Your task to perform on an android device: Clear all items from cart on bestbuy.com. Add "logitech g933" to the cart on bestbuy.com, then select checkout. Image 0: 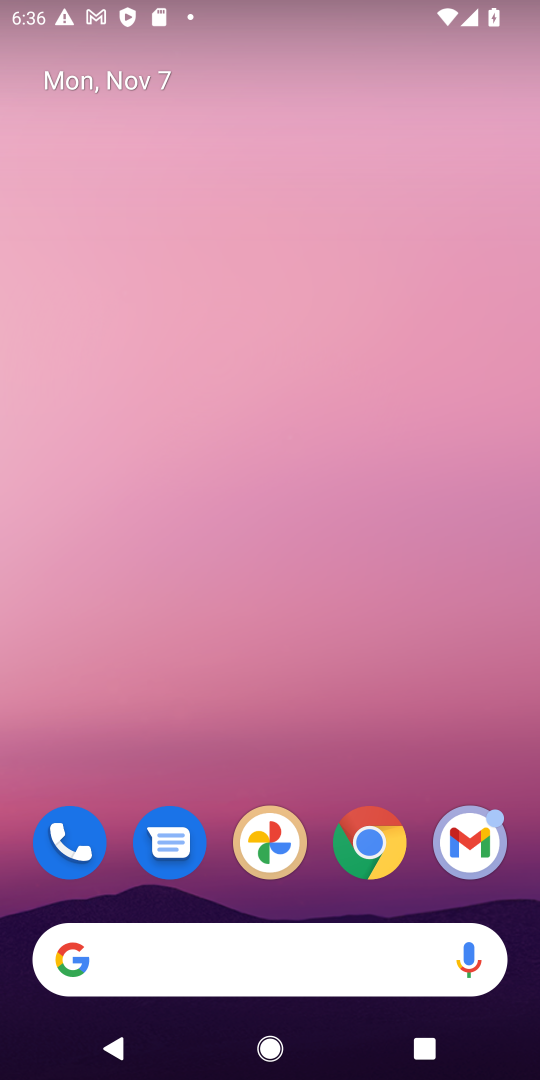
Step 0: drag from (331, 823) to (434, 209)
Your task to perform on an android device: Clear all items from cart on bestbuy.com. Add "logitech g933" to the cart on bestbuy.com, then select checkout. Image 1: 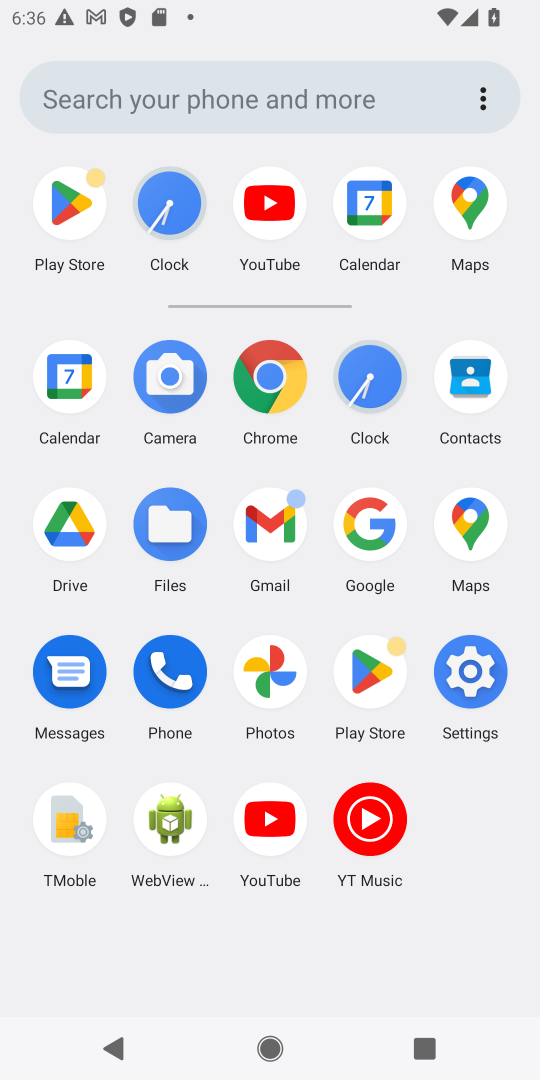
Step 1: click (273, 381)
Your task to perform on an android device: Clear all items from cart on bestbuy.com. Add "logitech g933" to the cart on bestbuy.com, then select checkout. Image 2: 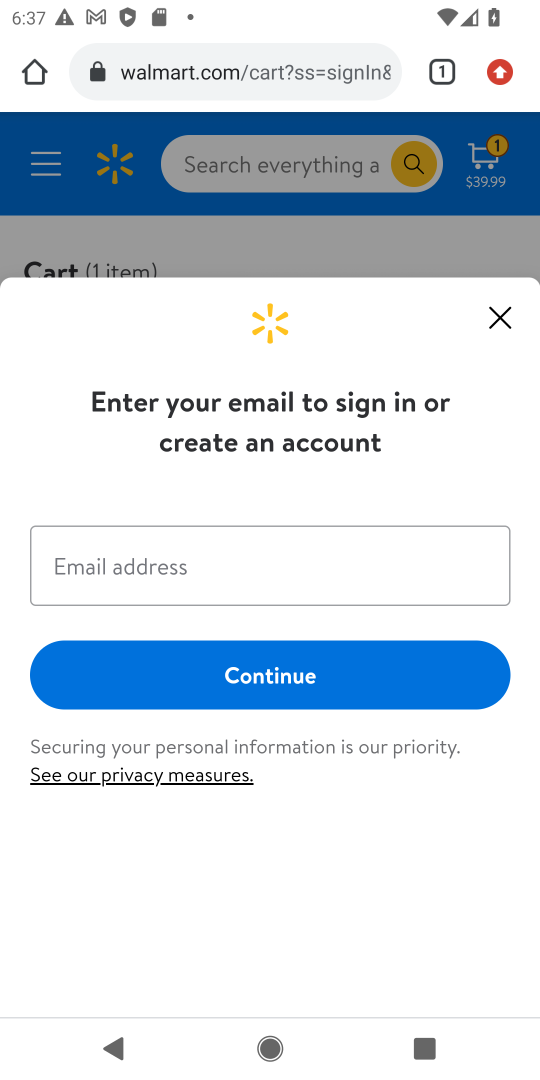
Step 2: press home button
Your task to perform on an android device: Clear all items from cart on bestbuy.com. Add "logitech g933" to the cart on bestbuy.com, then select checkout. Image 3: 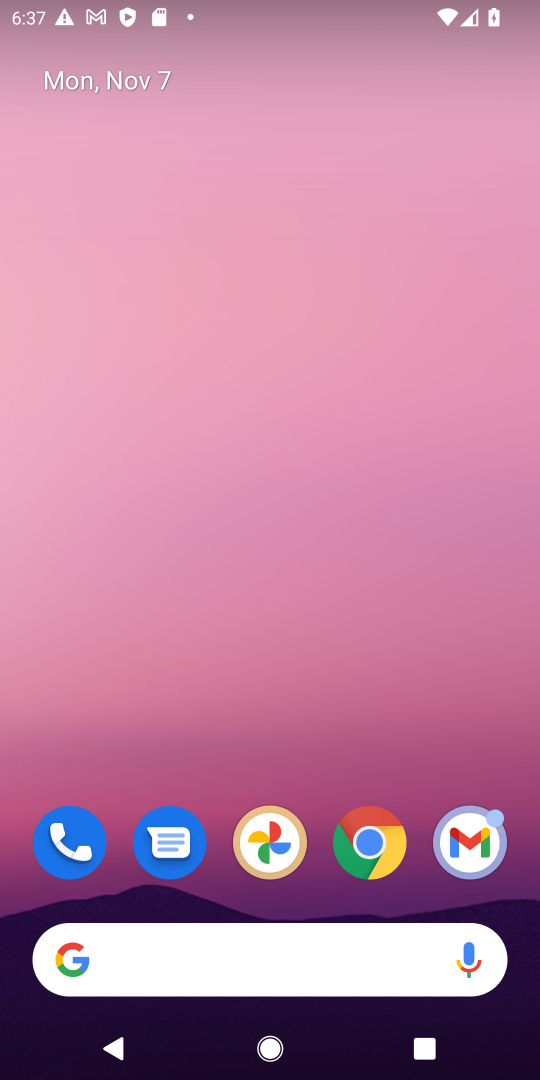
Step 3: click (370, 833)
Your task to perform on an android device: Clear all items from cart on bestbuy.com. Add "logitech g933" to the cart on bestbuy.com, then select checkout. Image 4: 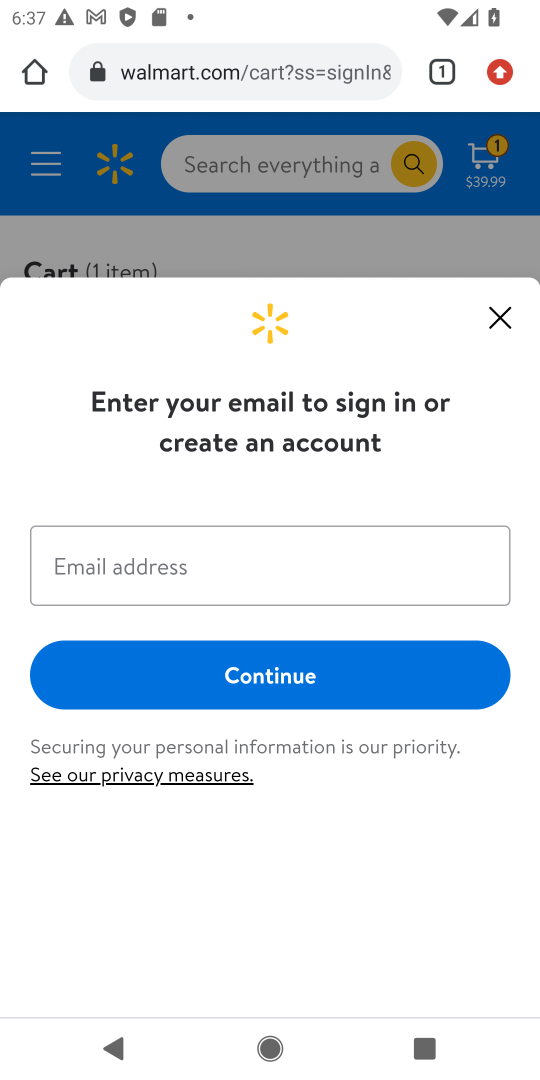
Step 4: click (187, 72)
Your task to perform on an android device: Clear all items from cart on bestbuy.com. Add "logitech g933" to the cart on bestbuy.com, then select checkout. Image 5: 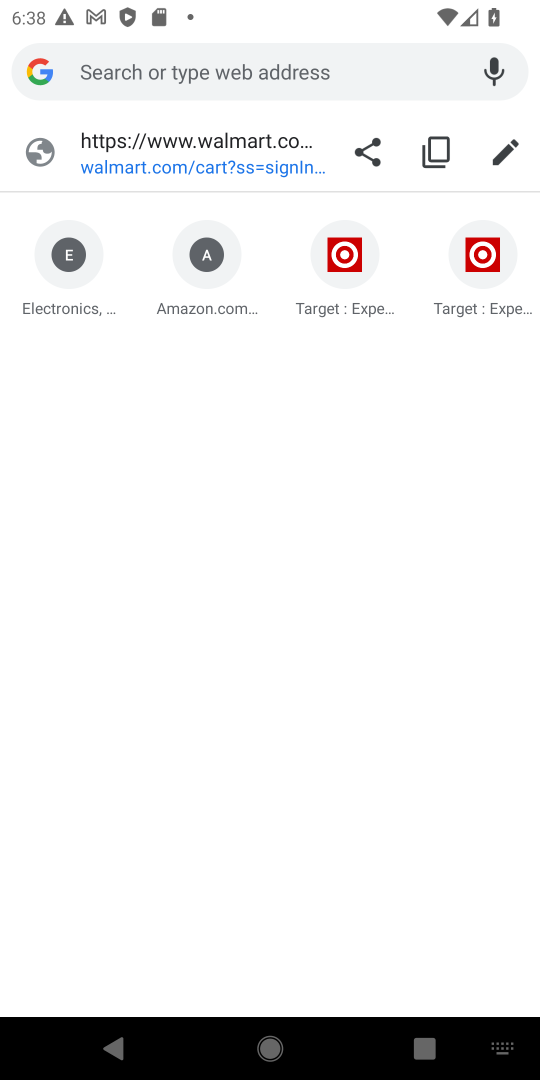
Step 5: type "bestbuy.com"
Your task to perform on an android device: Clear all items from cart on bestbuy.com. Add "logitech g933" to the cart on bestbuy.com, then select checkout. Image 6: 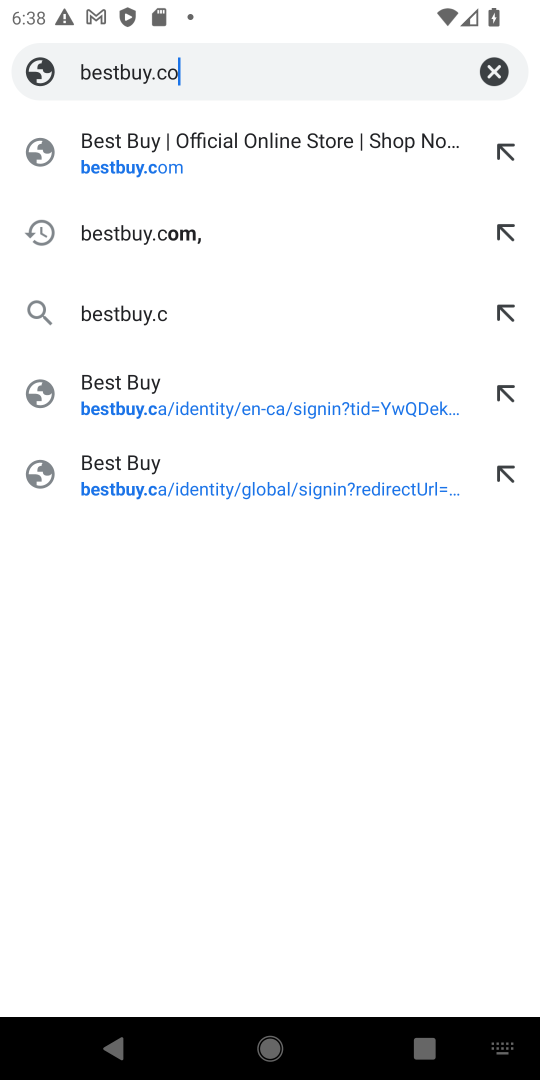
Step 6: press enter
Your task to perform on an android device: Clear all items from cart on bestbuy.com. Add "logitech g933" to the cart on bestbuy.com, then select checkout. Image 7: 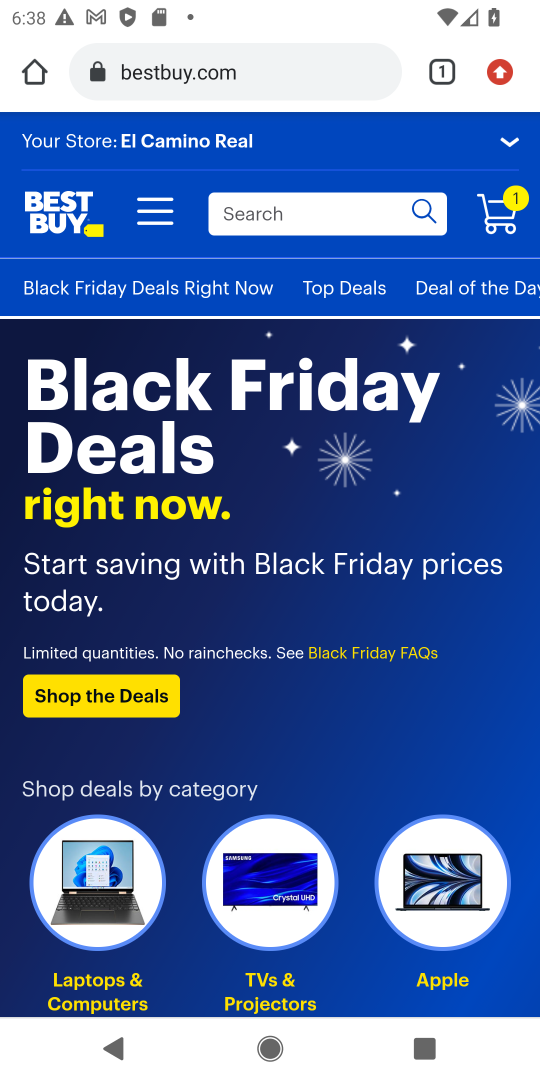
Step 7: click (494, 211)
Your task to perform on an android device: Clear all items from cart on bestbuy.com. Add "logitech g933" to the cart on bestbuy.com, then select checkout. Image 8: 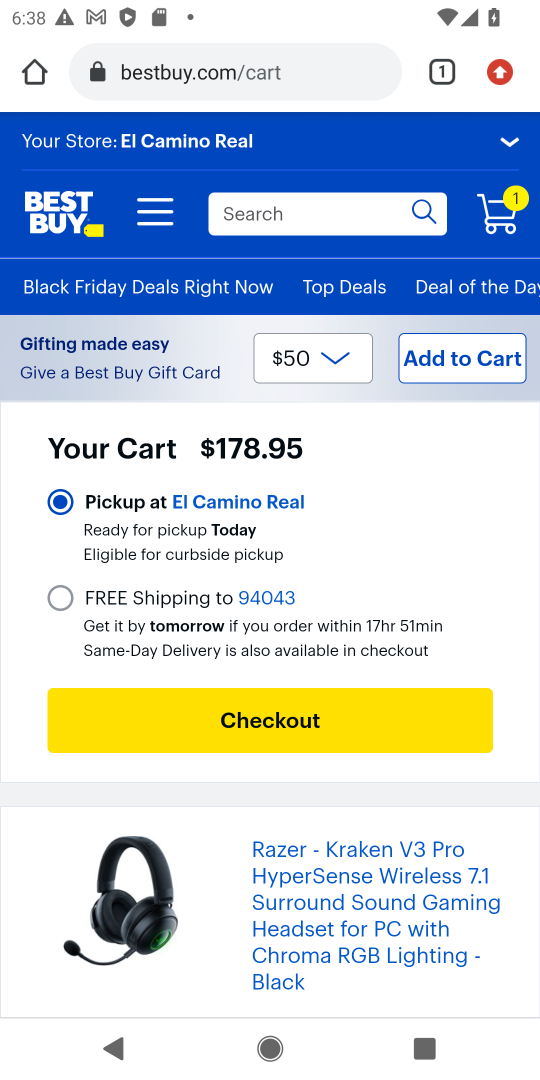
Step 8: drag from (140, 632) to (137, 267)
Your task to perform on an android device: Clear all items from cart on bestbuy.com. Add "logitech g933" to the cart on bestbuy.com, then select checkout. Image 9: 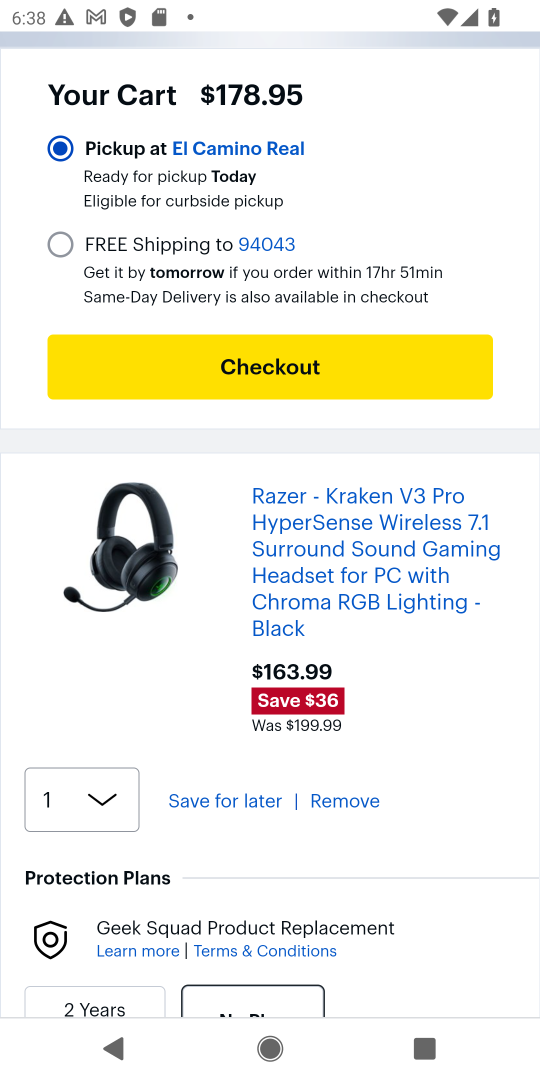
Step 9: click (352, 801)
Your task to perform on an android device: Clear all items from cart on bestbuy.com. Add "logitech g933" to the cart on bestbuy.com, then select checkout. Image 10: 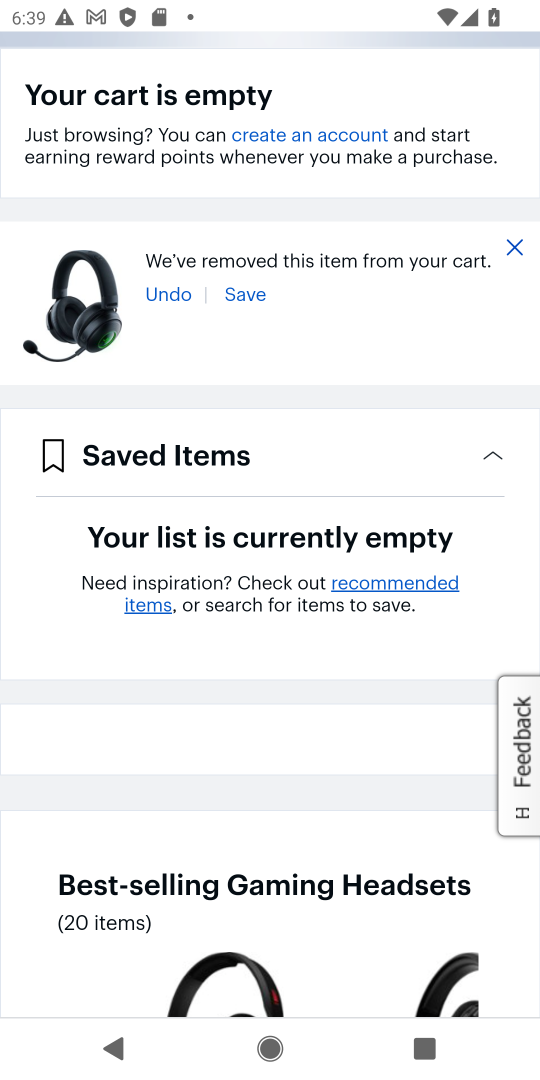
Step 10: press back button
Your task to perform on an android device: Clear all items from cart on bestbuy.com. Add "logitech g933" to the cart on bestbuy.com, then select checkout. Image 11: 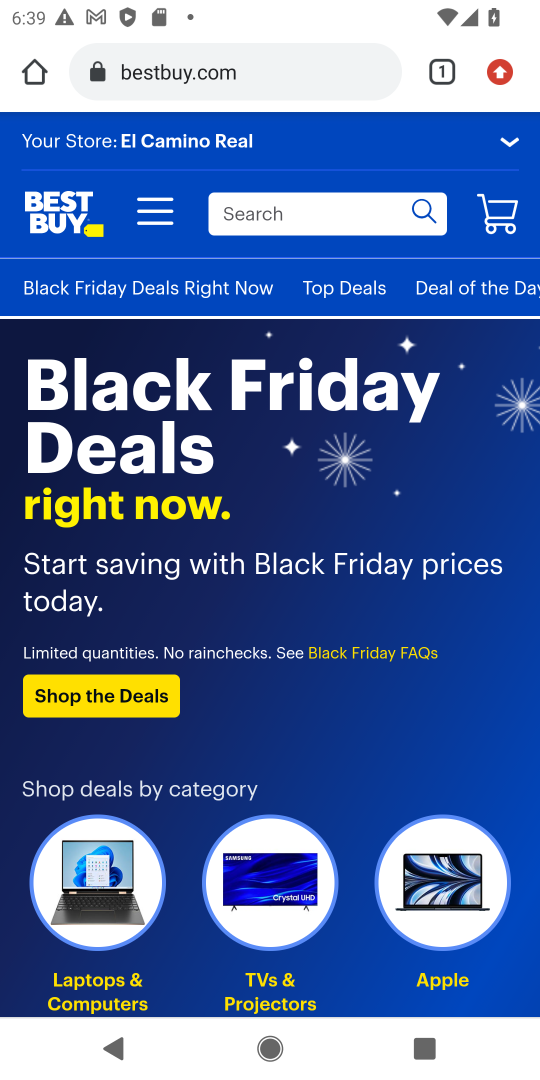
Step 11: click (340, 206)
Your task to perform on an android device: Clear all items from cart on bestbuy.com. Add "logitech g933" to the cart on bestbuy.com, then select checkout. Image 12: 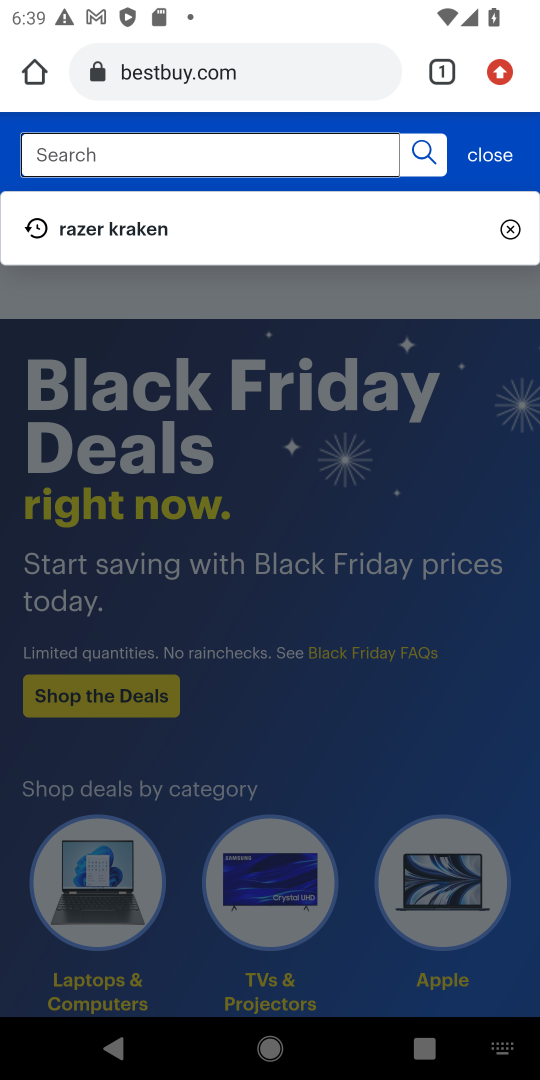
Step 12: type "logitech g933"
Your task to perform on an android device: Clear all items from cart on bestbuy.com. Add "logitech g933" to the cart on bestbuy.com, then select checkout. Image 13: 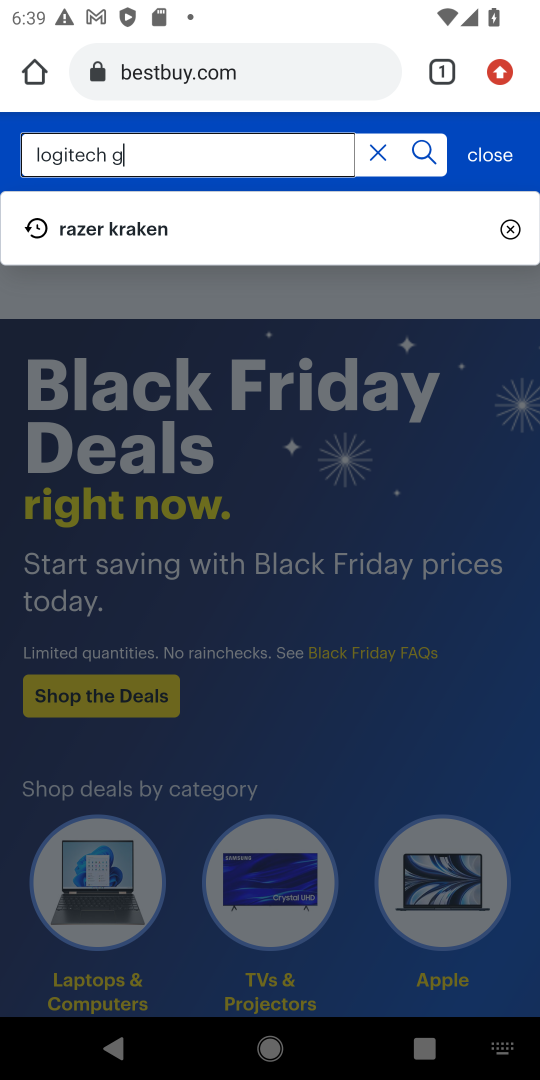
Step 13: press enter
Your task to perform on an android device: Clear all items from cart on bestbuy.com. Add "logitech g933" to the cart on bestbuy.com, then select checkout. Image 14: 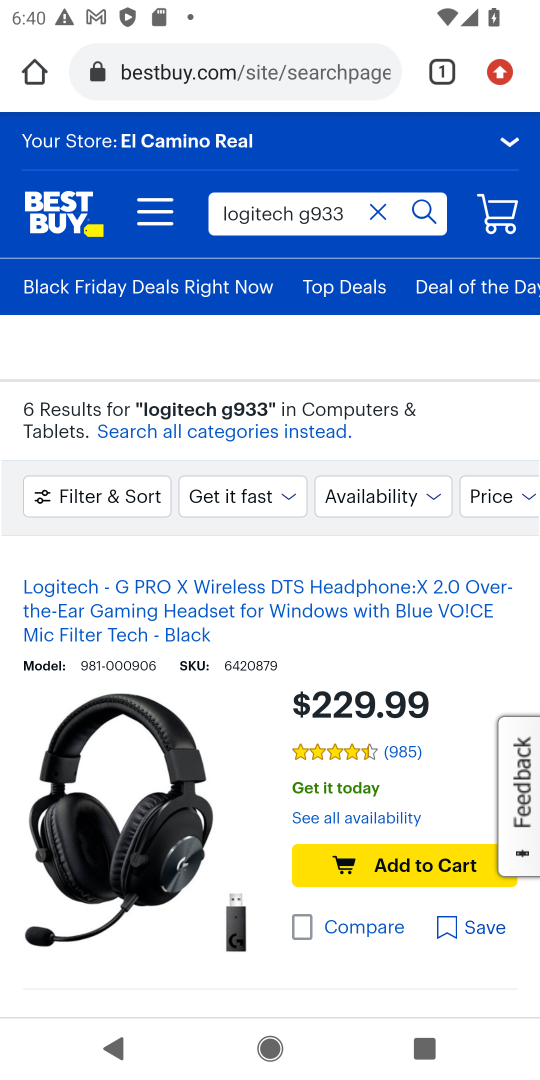
Step 14: drag from (189, 584) to (148, 320)
Your task to perform on an android device: Clear all items from cart on bestbuy.com. Add "logitech g933" to the cart on bestbuy.com, then select checkout. Image 15: 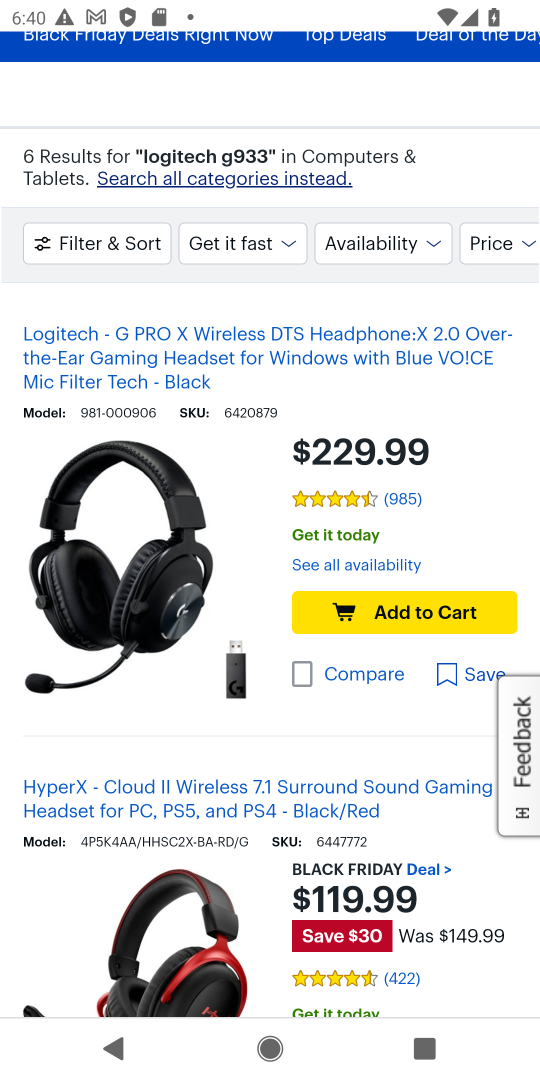
Step 15: click (360, 607)
Your task to perform on an android device: Clear all items from cart on bestbuy.com. Add "logitech g933" to the cart on bestbuy.com, then select checkout. Image 16: 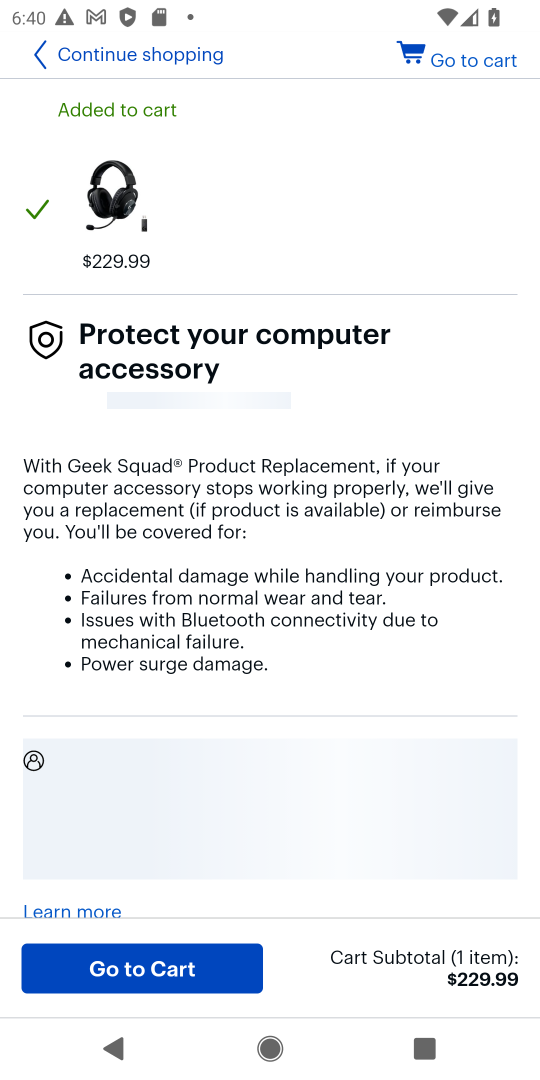
Step 16: click (204, 977)
Your task to perform on an android device: Clear all items from cart on bestbuy.com. Add "logitech g933" to the cart on bestbuy.com, then select checkout. Image 17: 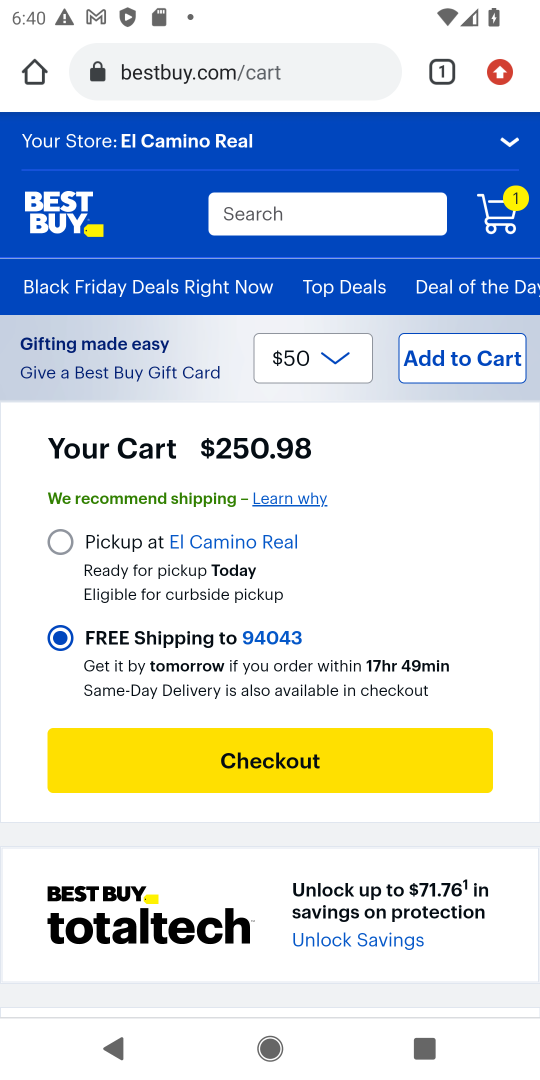
Step 17: click (499, 217)
Your task to perform on an android device: Clear all items from cart on bestbuy.com. Add "logitech g933" to the cart on bestbuy.com, then select checkout. Image 18: 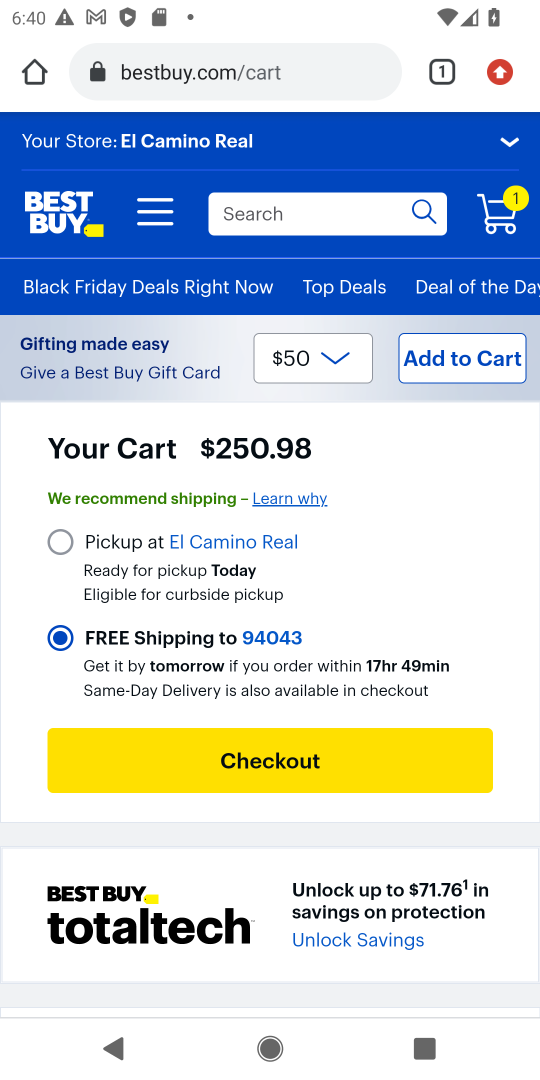
Step 18: click (286, 773)
Your task to perform on an android device: Clear all items from cart on bestbuy.com. Add "logitech g933" to the cart on bestbuy.com, then select checkout. Image 19: 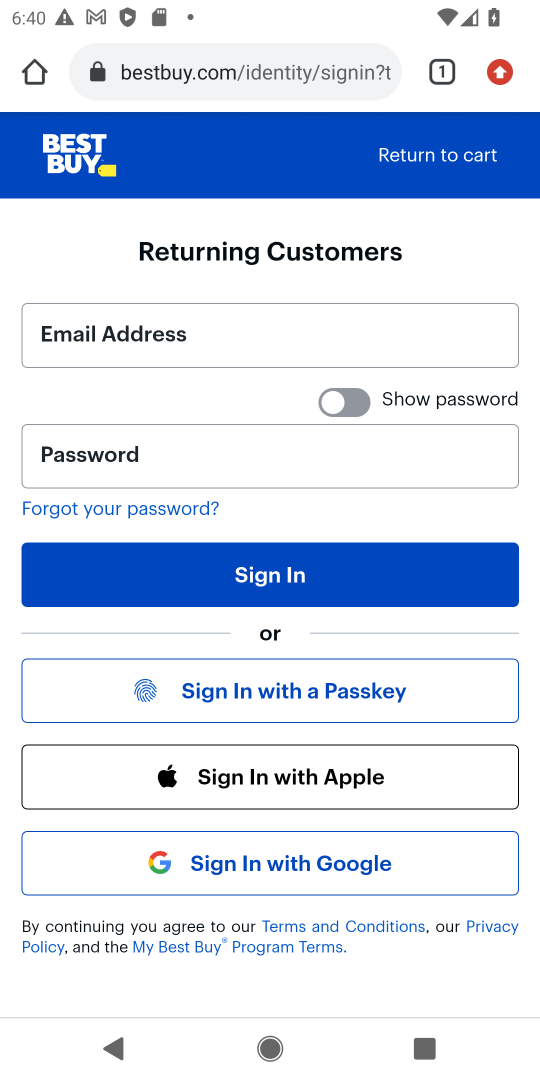
Step 19: task complete